Your task to perform on an android device: Open calendar and show me the first week of next month Image 0: 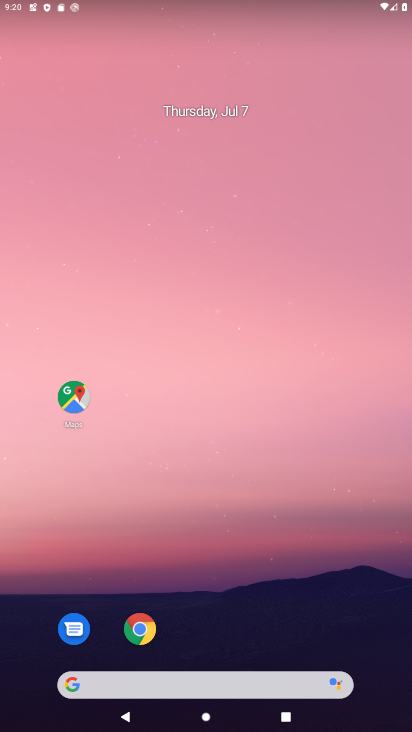
Step 0: drag from (227, 540) to (192, 15)
Your task to perform on an android device: Open calendar and show me the first week of next month Image 1: 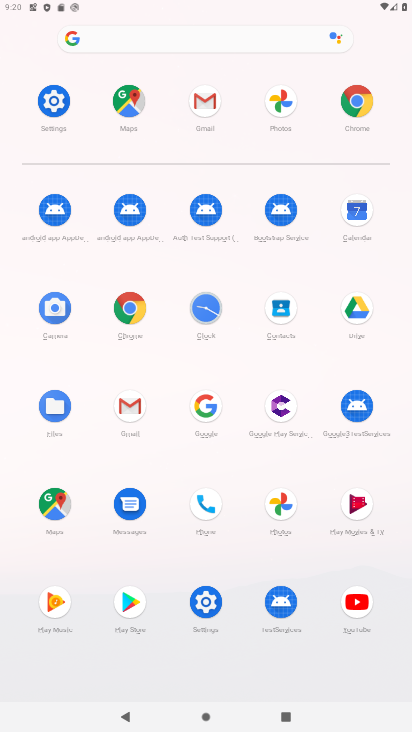
Step 1: click (357, 201)
Your task to perform on an android device: Open calendar and show me the first week of next month Image 2: 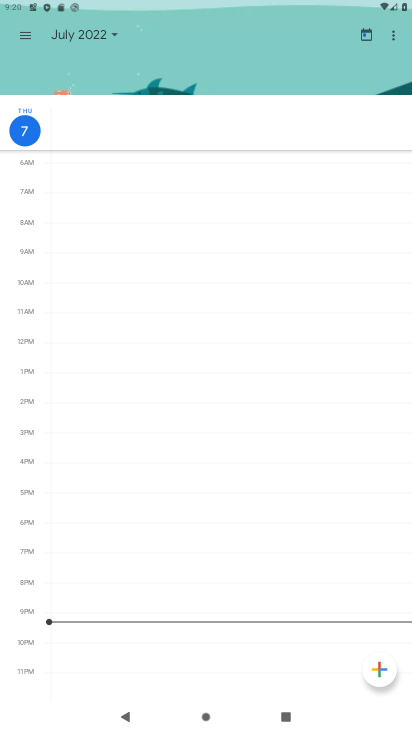
Step 2: click (22, 31)
Your task to perform on an android device: Open calendar and show me the first week of next month Image 3: 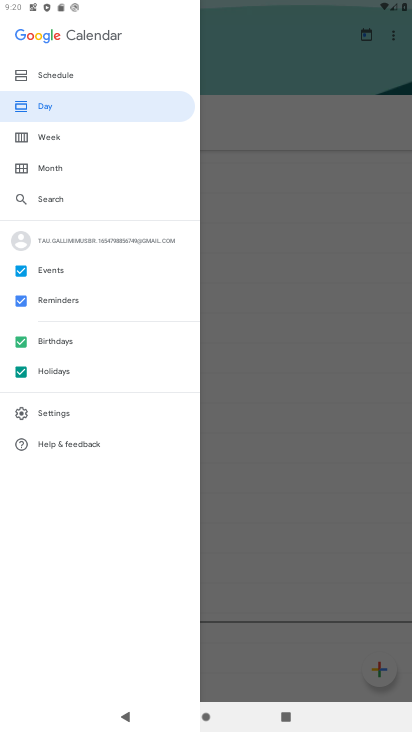
Step 3: click (49, 137)
Your task to perform on an android device: Open calendar and show me the first week of next month Image 4: 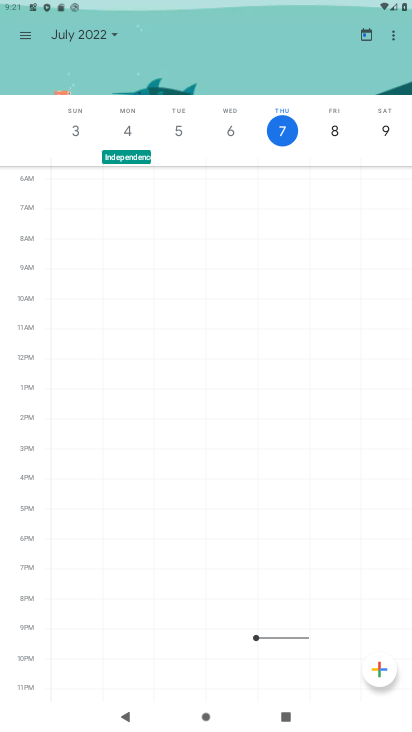
Step 4: click (111, 35)
Your task to perform on an android device: Open calendar and show me the first week of next month Image 5: 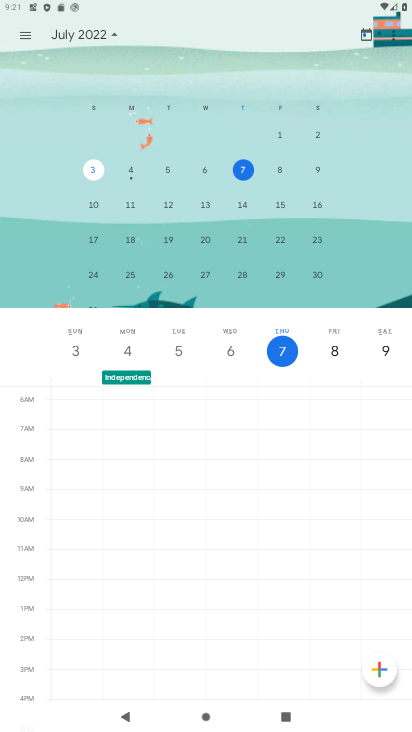
Step 5: task complete